Your task to perform on an android device: Add jbl charge 4 to the cart on amazon.com Image 0: 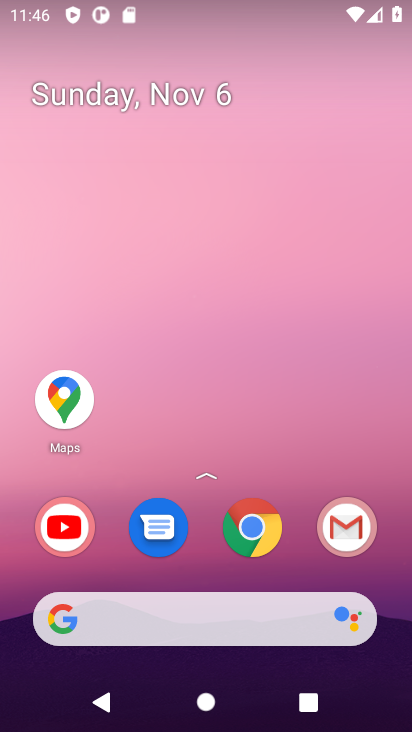
Step 0: drag from (264, 571) to (120, 120)
Your task to perform on an android device: Add jbl charge 4 to the cart on amazon.com Image 1: 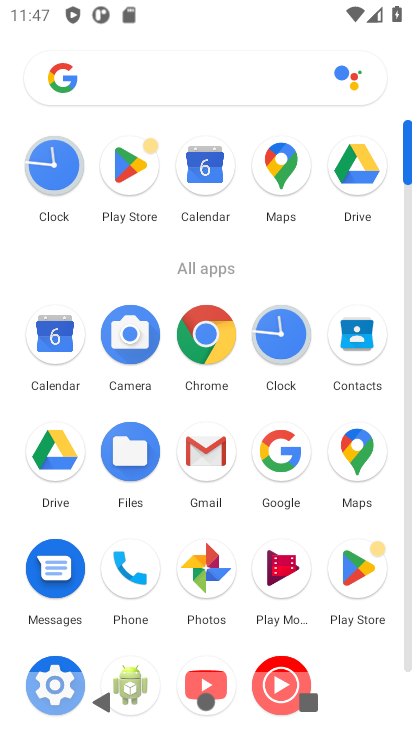
Step 1: click (210, 334)
Your task to perform on an android device: Add jbl charge 4 to the cart on amazon.com Image 2: 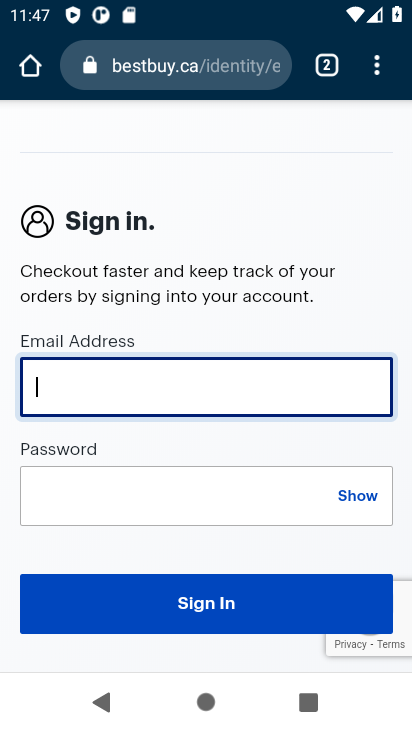
Step 2: click (141, 66)
Your task to perform on an android device: Add jbl charge 4 to the cart on amazon.com Image 3: 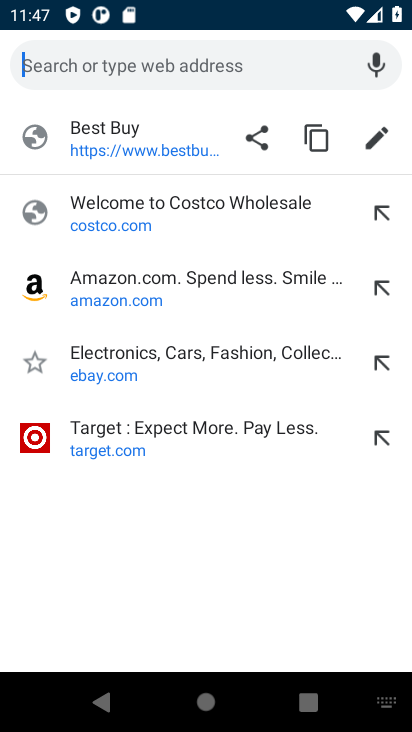
Step 3: type "amazon.com"
Your task to perform on an android device: Add jbl charge 4 to the cart on amazon.com Image 4: 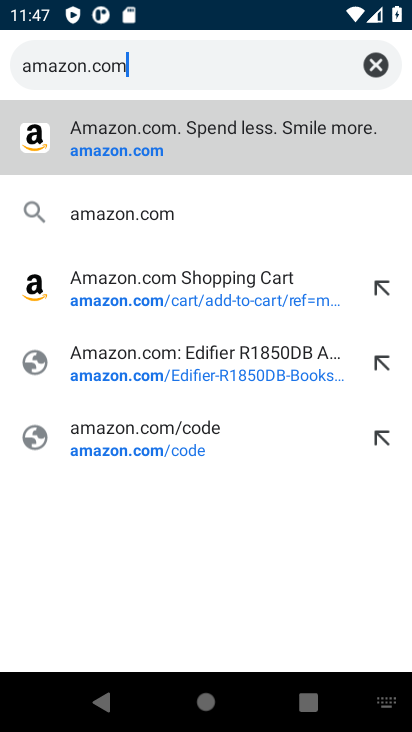
Step 4: press enter
Your task to perform on an android device: Add jbl charge 4 to the cart on amazon.com Image 5: 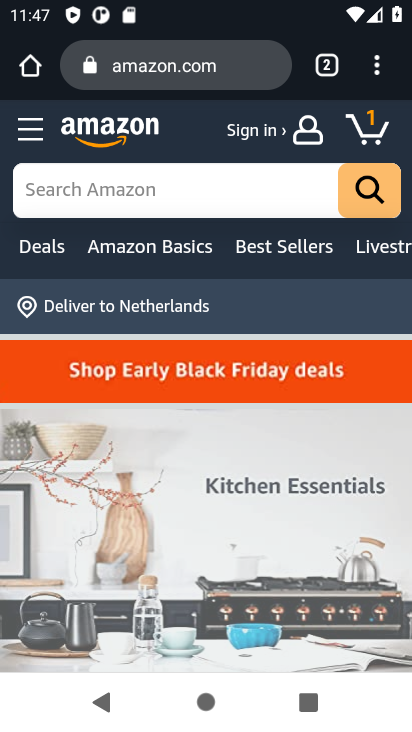
Step 5: click (193, 173)
Your task to perform on an android device: Add jbl charge 4 to the cart on amazon.com Image 6: 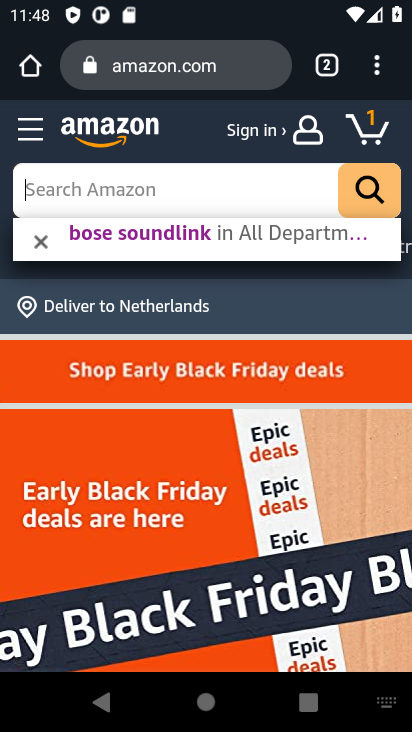
Step 6: type "jbl charge 4"
Your task to perform on an android device: Add jbl charge 4 to the cart on amazon.com Image 7: 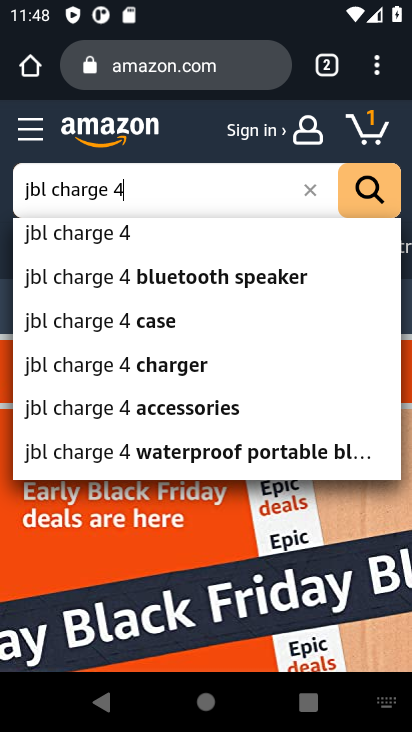
Step 7: press enter
Your task to perform on an android device: Add jbl charge 4 to the cart on amazon.com Image 8: 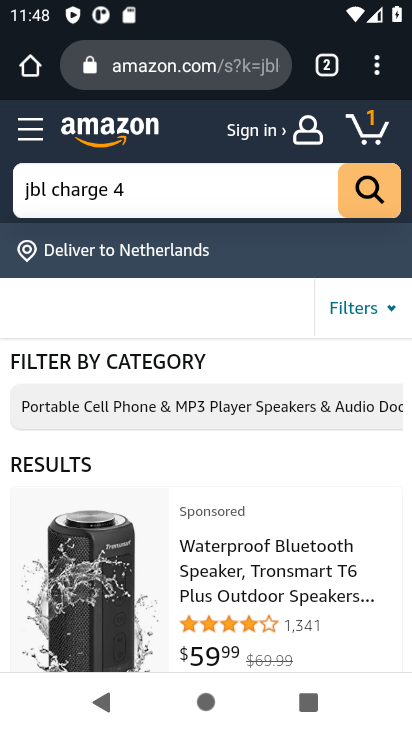
Step 8: drag from (319, 594) to (279, 418)
Your task to perform on an android device: Add jbl charge 4 to the cart on amazon.com Image 9: 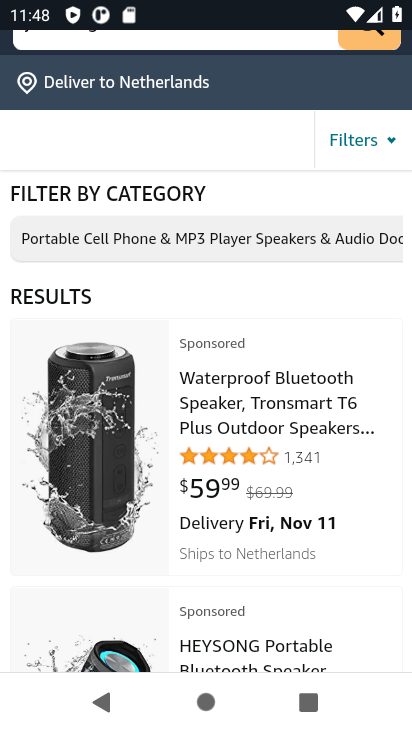
Step 9: click (218, 399)
Your task to perform on an android device: Add jbl charge 4 to the cart on amazon.com Image 10: 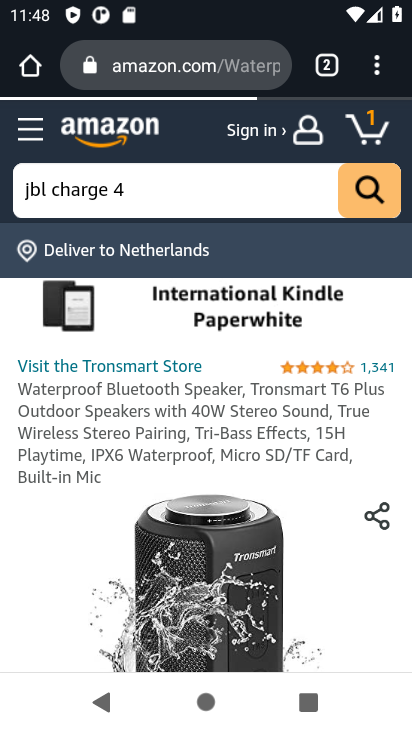
Step 10: drag from (279, 544) to (254, 366)
Your task to perform on an android device: Add jbl charge 4 to the cart on amazon.com Image 11: 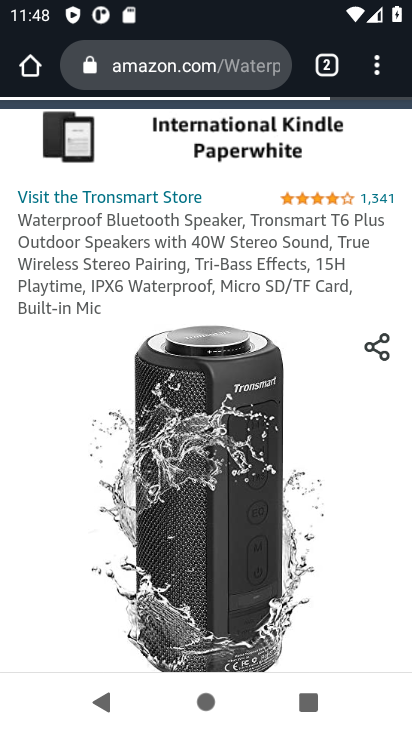
Step 11: drag from (305, 590) to (272, 360)
Your task to perform on an android device: Add jbl charge 4 to the cart on amazon.com Image 12: 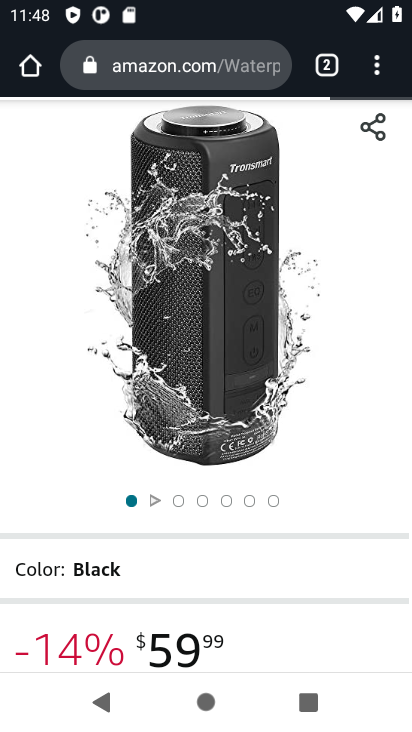
Step 12: drag from (258, 554) to (236, 359)
Your task to perform on an android device: Add jbl charge 4 to the cart on amazon.com Image 13: 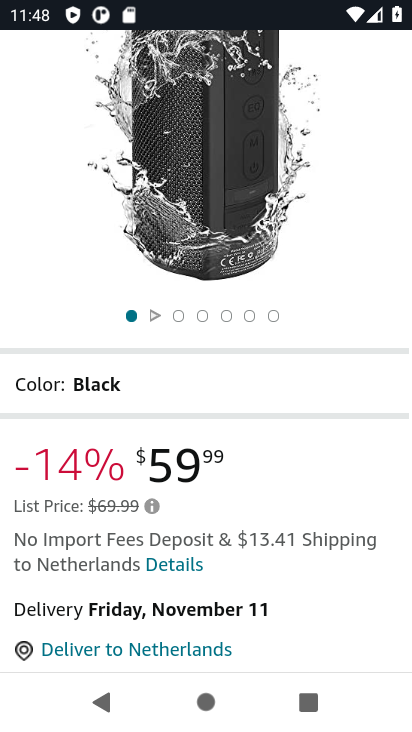
Step 13: drag from (302, 528) to (272, 357)
Your task to perform on an android device: Add jbl charge 4 to the cart on amazon.com Image 14: 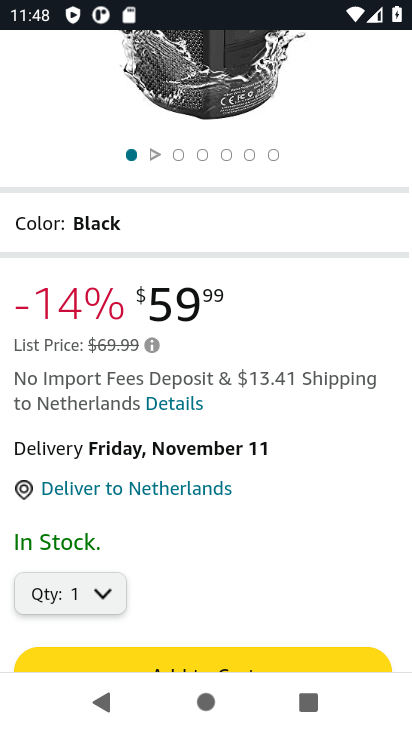
Step 14: drag from (324, 557) to (304, 296)
Your task to perform on an android device: Add jbl charge 4 to the cart on amazon.com Image 15: 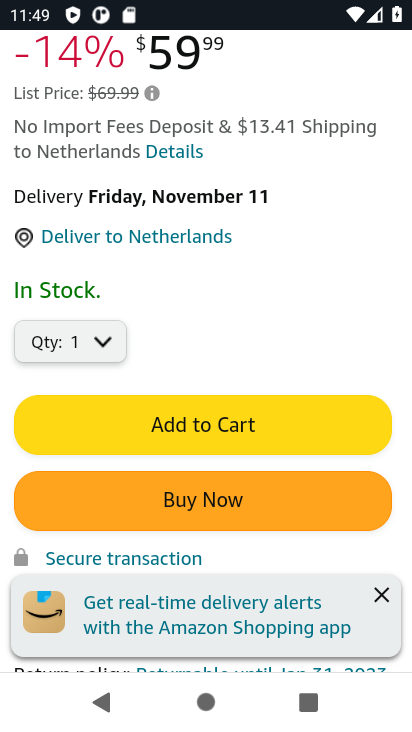
Step 15: click (246, 427)
Your task to perform on an android device: Add jbl charge 4 to the cart on amazon.com Image 16: 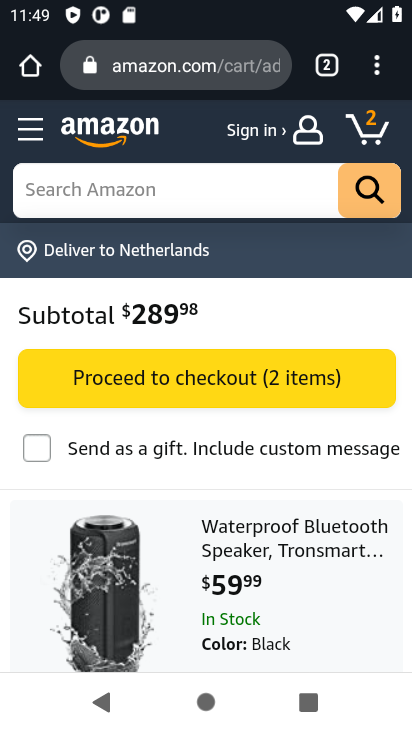
Step 16: task complete